Your task to perform on an android device: Play the last video I watched on Youtube Image 0: 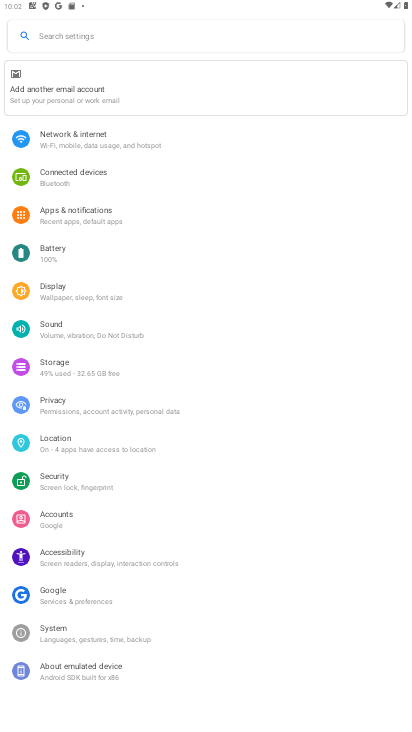
Step 0: press home button
Your task to perform on an android device: Play the last video I watched on Youtube Image 1: 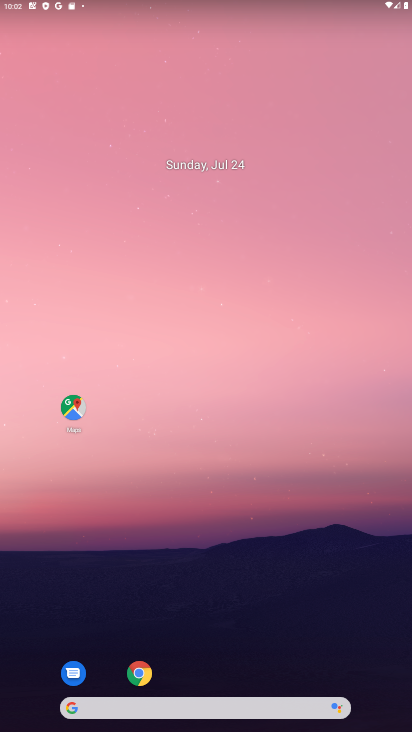
Step 1: drag from (149, 450) to (228, 187)
Your task to perform on an android device: Play the last video I watched on Youtube Image 2: 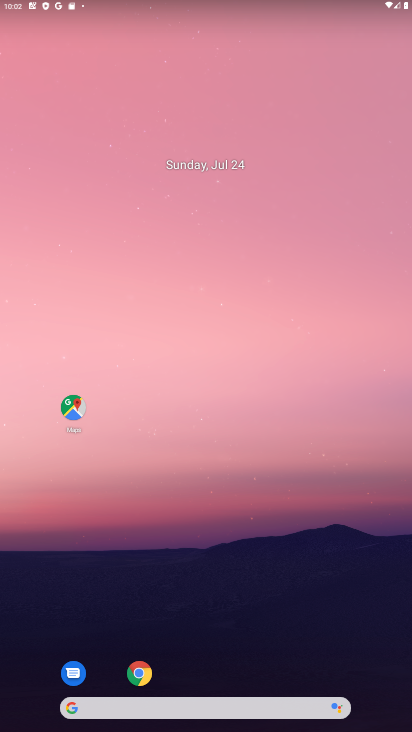
Step 2: drag from (31, 686) to (220, 221)
Your task to perform on an android device: Play the last video I watched on Youtube Image 3: 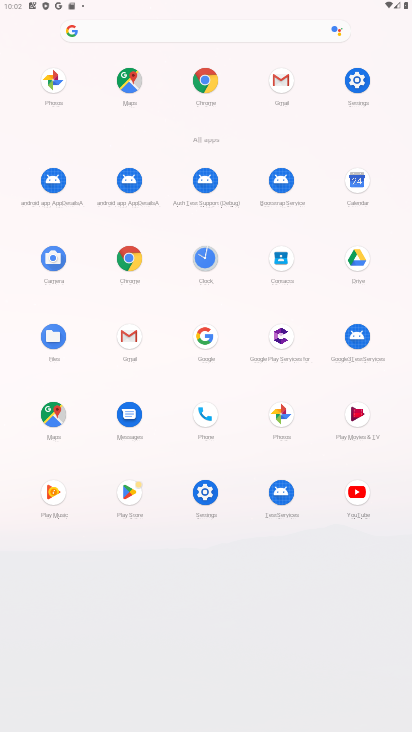
Step 3: click (360, 504)
Your task to perform on an android device: Play the last video I watched on Youtube Image 4: 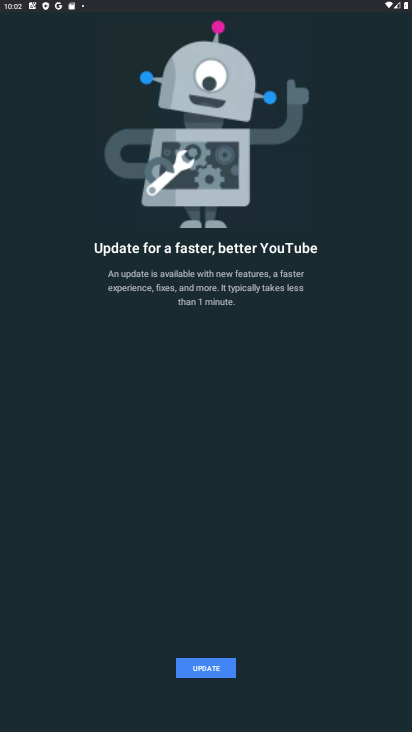
Step 4: click (211, 673)
Your task to perform on an android device: Play the last video I watched on Youtube Image 5: 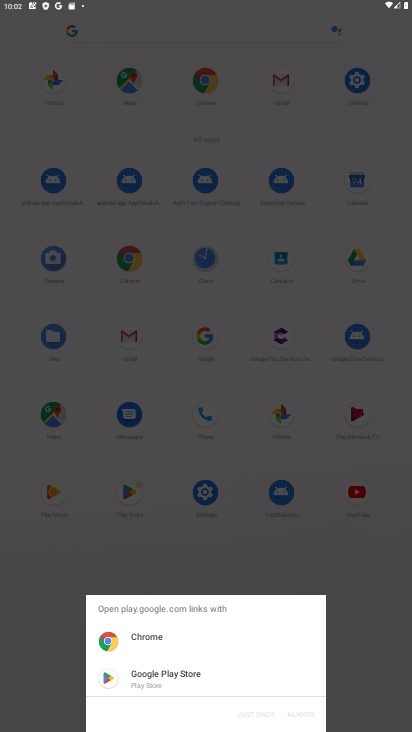
Step 5: click (148, 674)
Your task to perform on an android device: Play the last video I watched on Youtube Image 6: 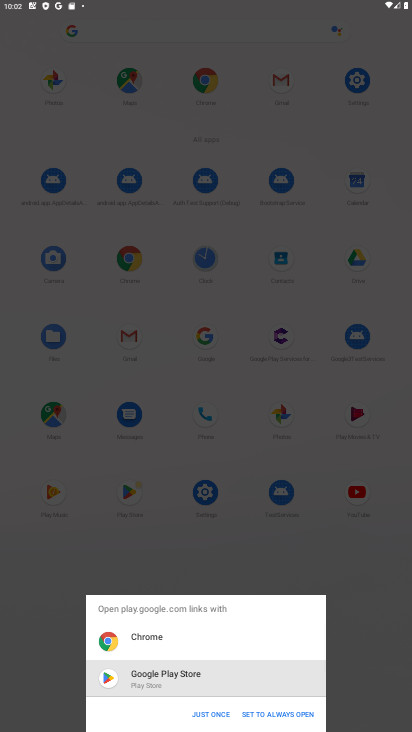
Step 6: click (214, 715)
Your task to perform on an android device: Play the last video I watched on Youtube Image 7: 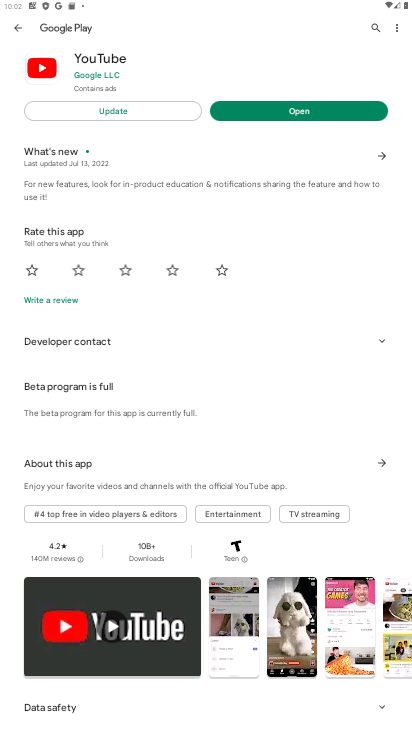
Step 7: click (270, 107)
Your task to perform on an android device: Play the last video I watched on Youtube Image 8: 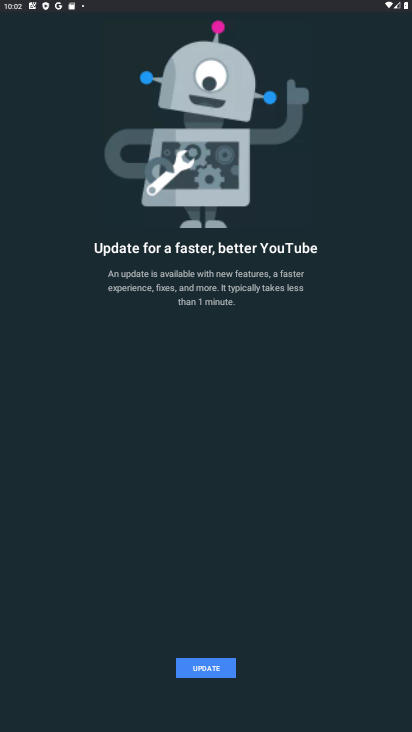
Step 8: task complete